Your task to perform on an android device: Add razer kraken to the cart on newegg Image 0: 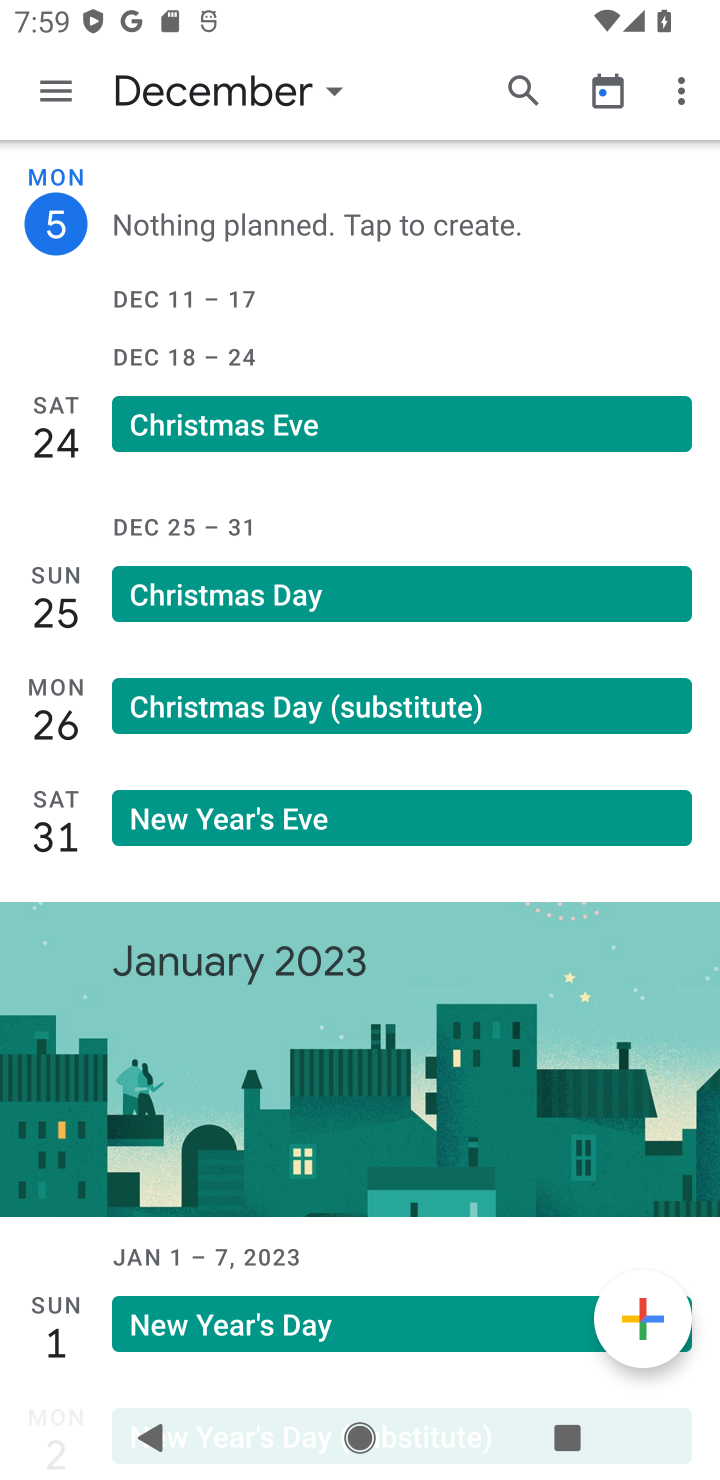
Step 0: press home button
Your task to perform on an android device: Add razer kraken to the cart on newegg Image 1: 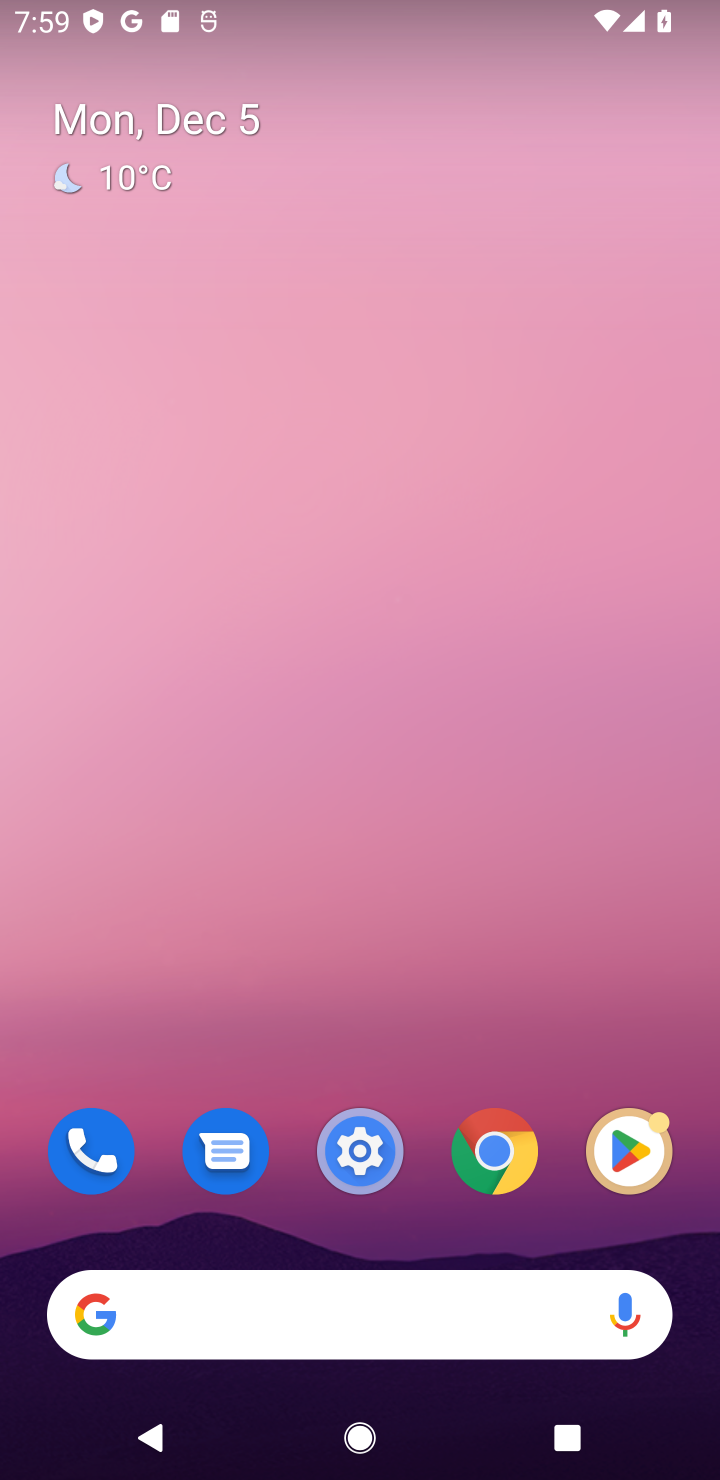
Step 1: click (541, 1327)
Your task to perform on an android device: Add razer kraken to the cart on newegg Image 2: 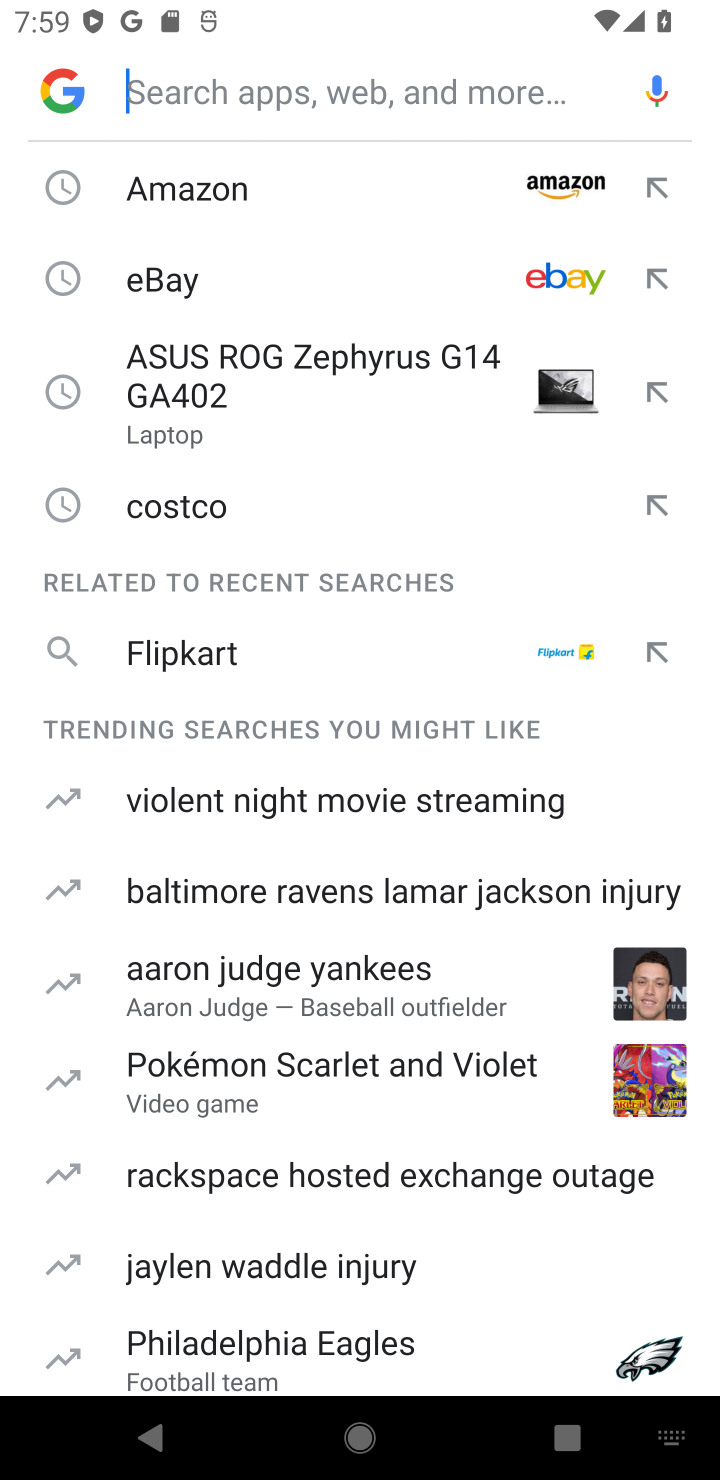
Step 2: type "newegg"
Your task to perform on an android device: Add razer kraken to the cart on newegg Image 3: 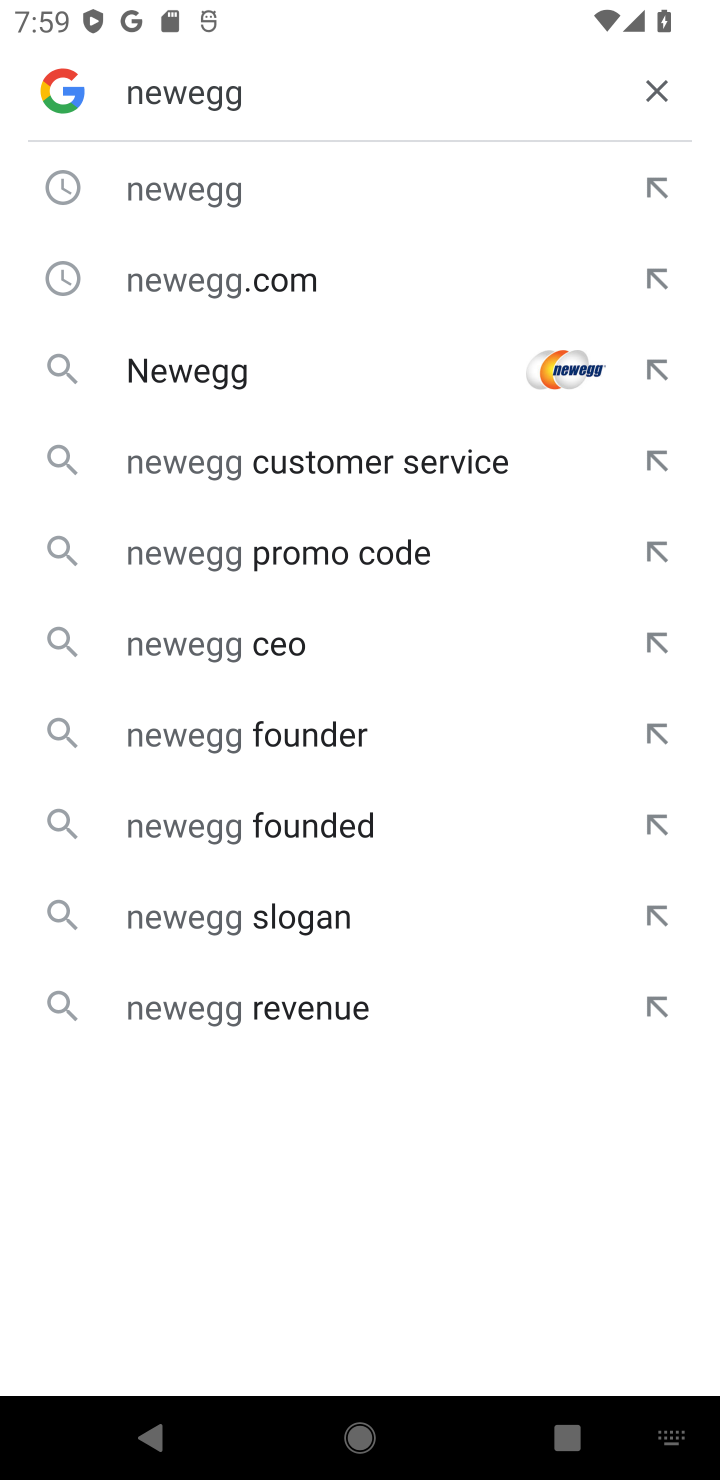
Step 3: click (216, 281)
Your task to perform on an android device: Add razer kraken to the cart on newegg Image 4: 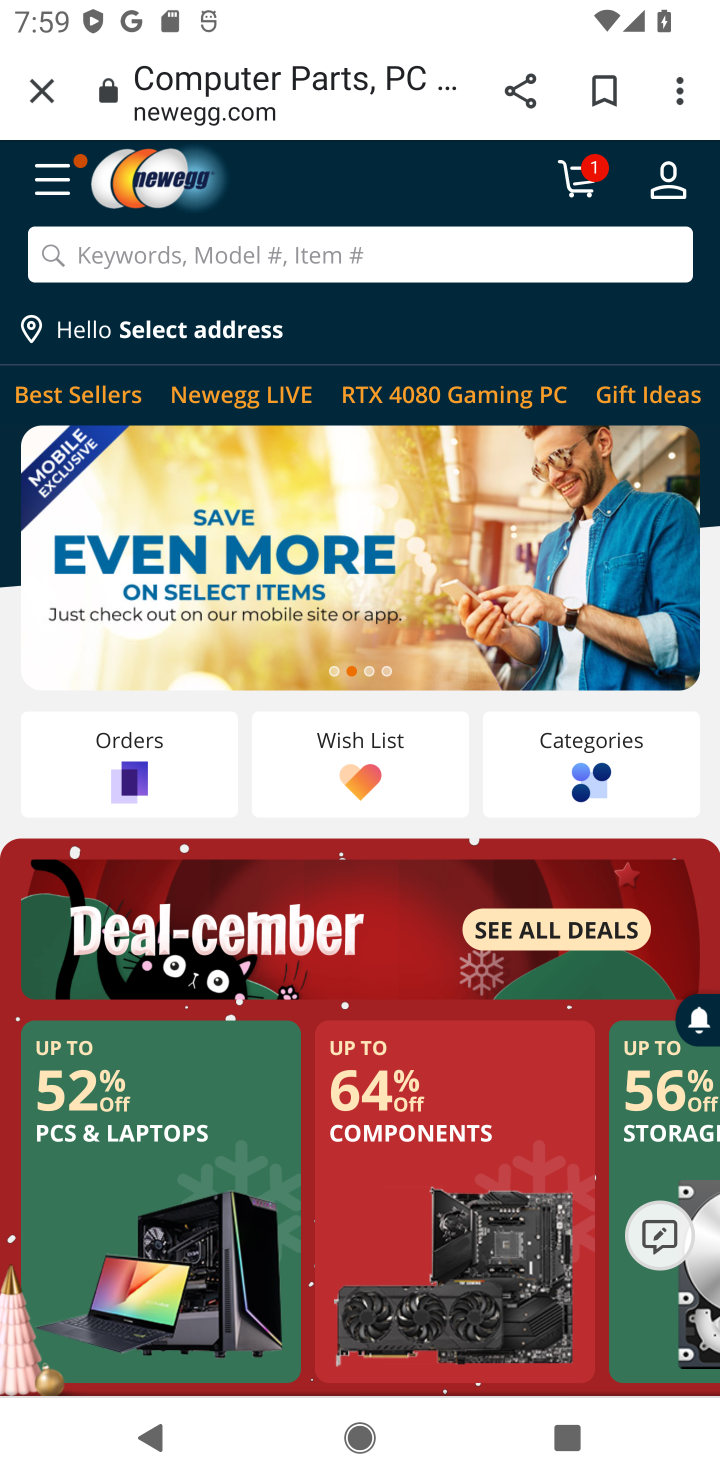
Step 4: click (244, 263)
Your task to perform on an android device: Add razer kraken to the cart on newegg Image 5: 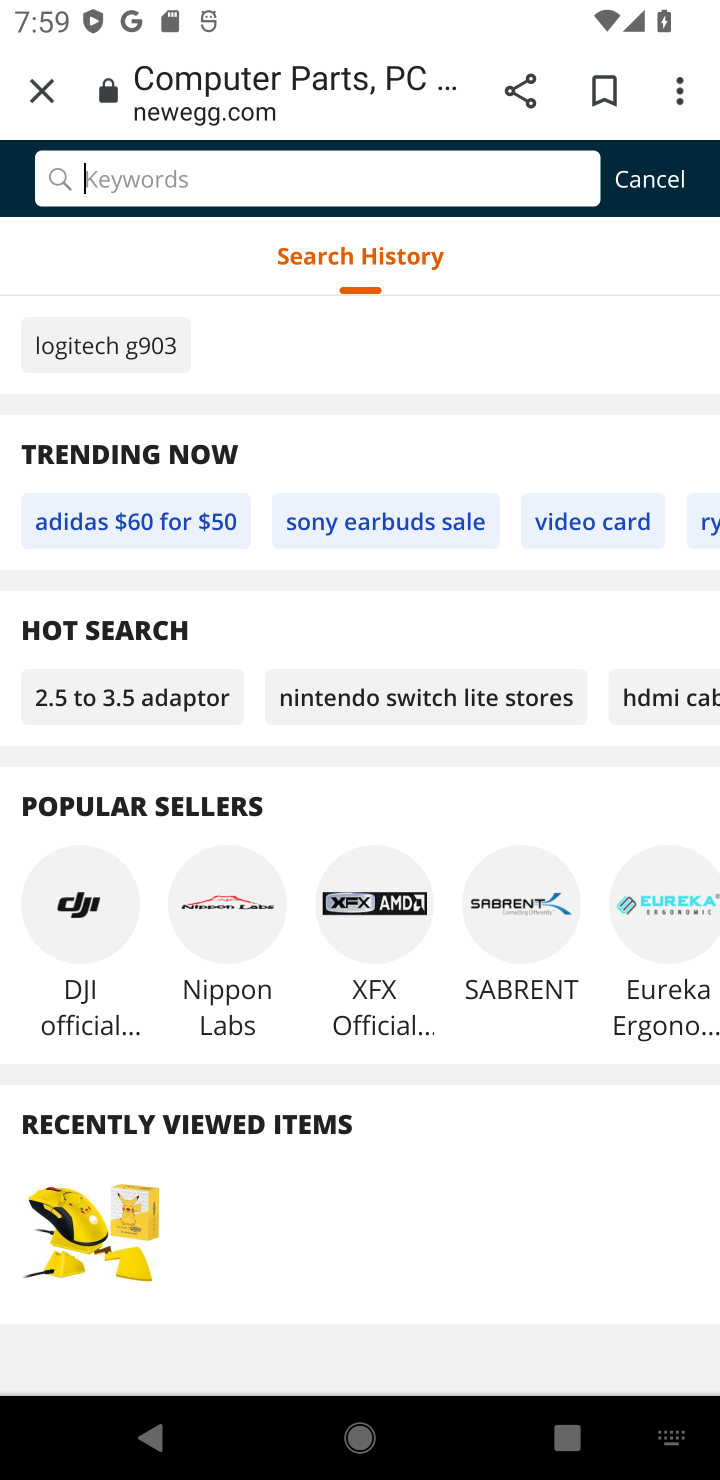
Step 5: type "razer karken"
Your task to perform on an android device: Add razer kraken to the cart on newegg Image 6: 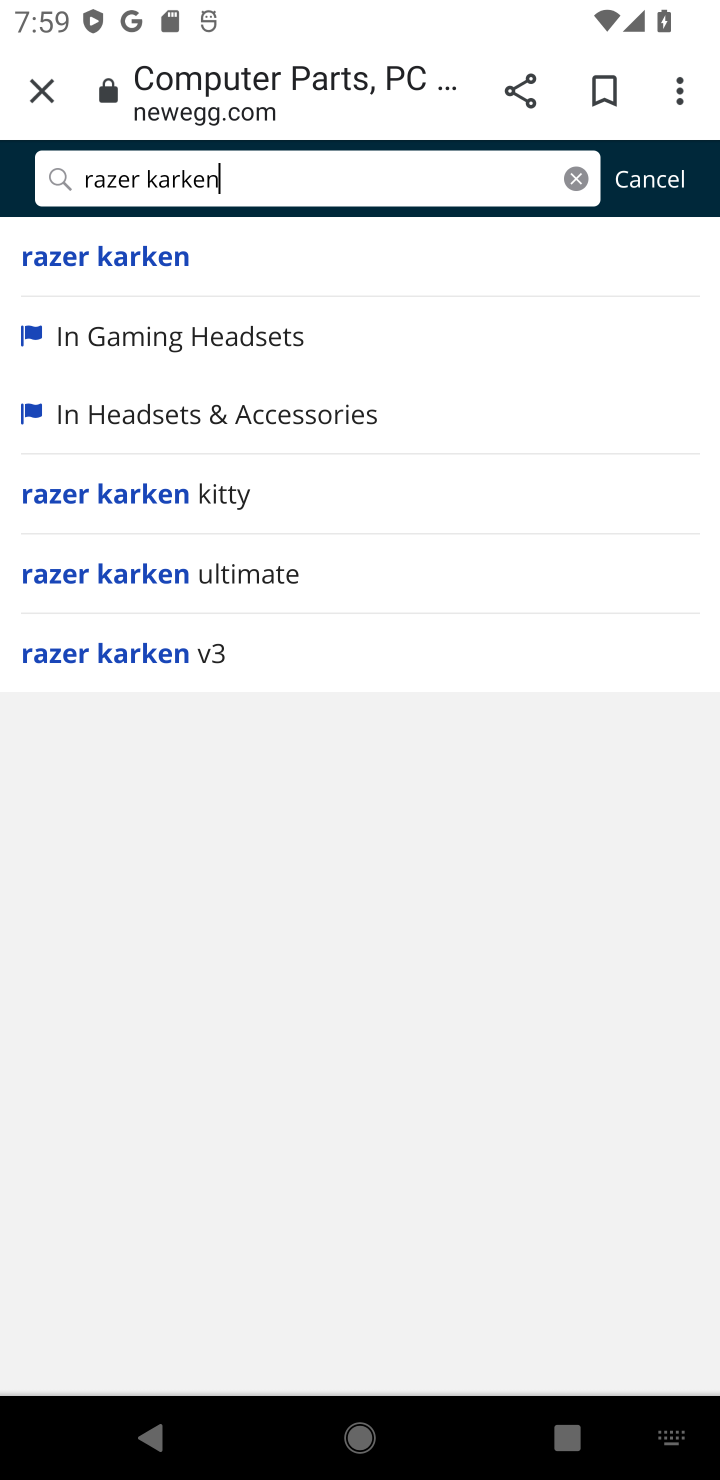
Step 6: click (159, 251)
Your task to perform on an android device: Add razer kraken to the cart on newegg Image 7: 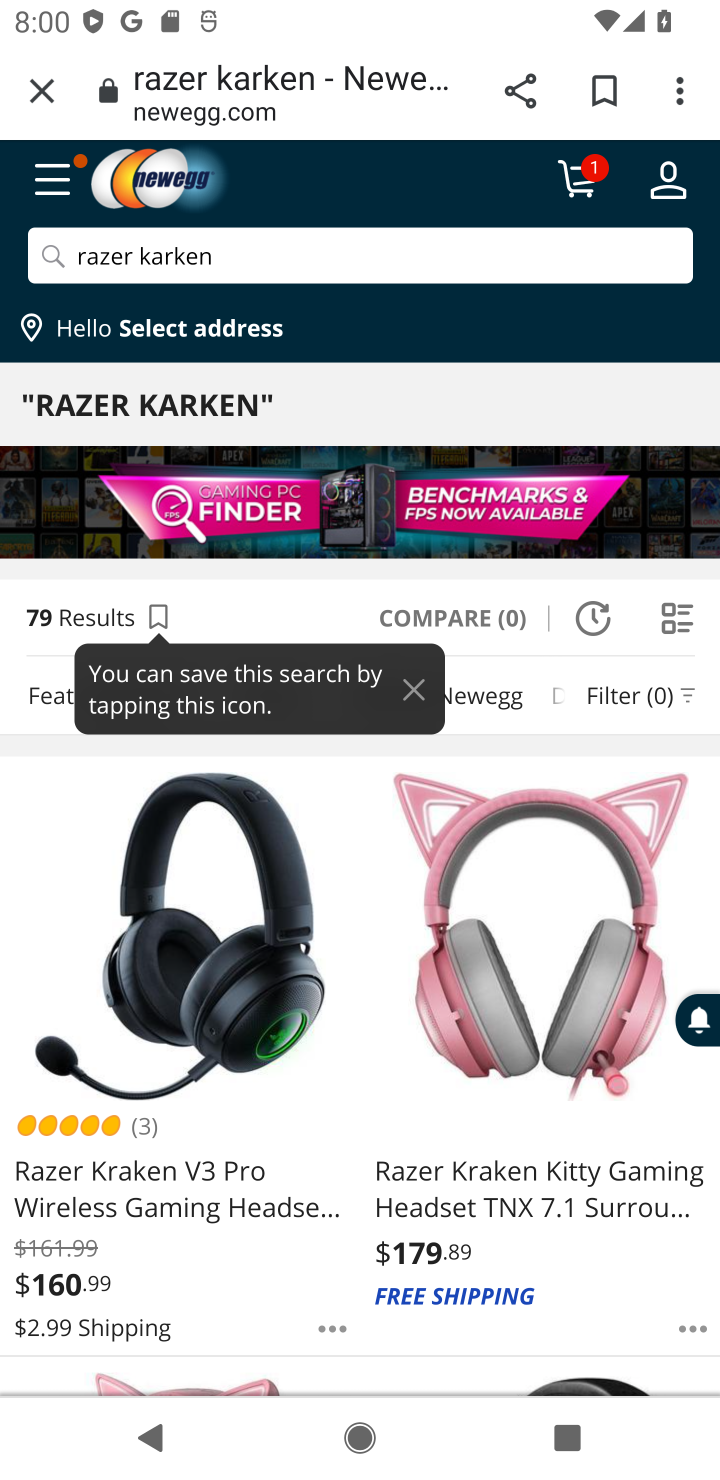
Step 7: drag from (265, 1299) to (214, 1053)
Your task to perform on an android device: Add razer kraken to the cart on newegg Image 8: 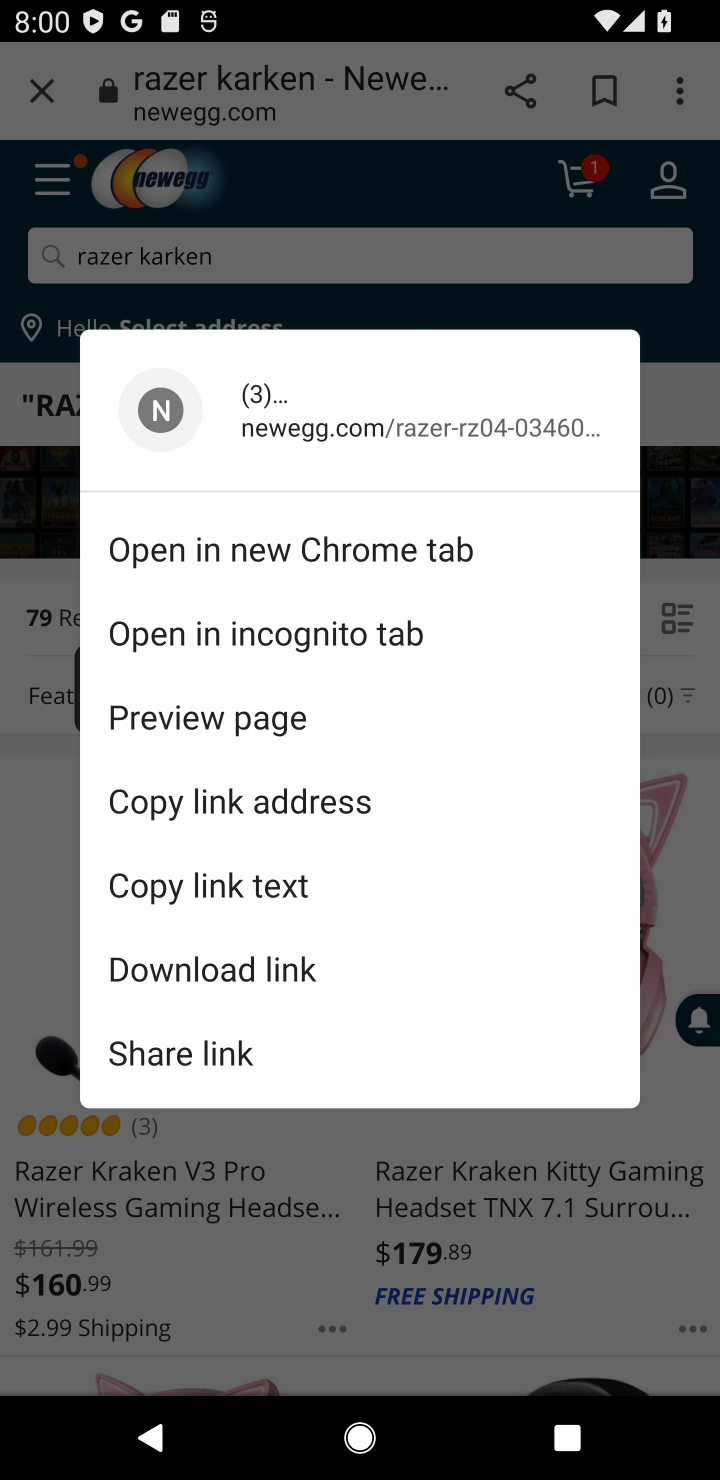
Step 8: click (178, 1293)
Your task to perform on an android device: Add razer kraken to the cart on newegg Image 9: 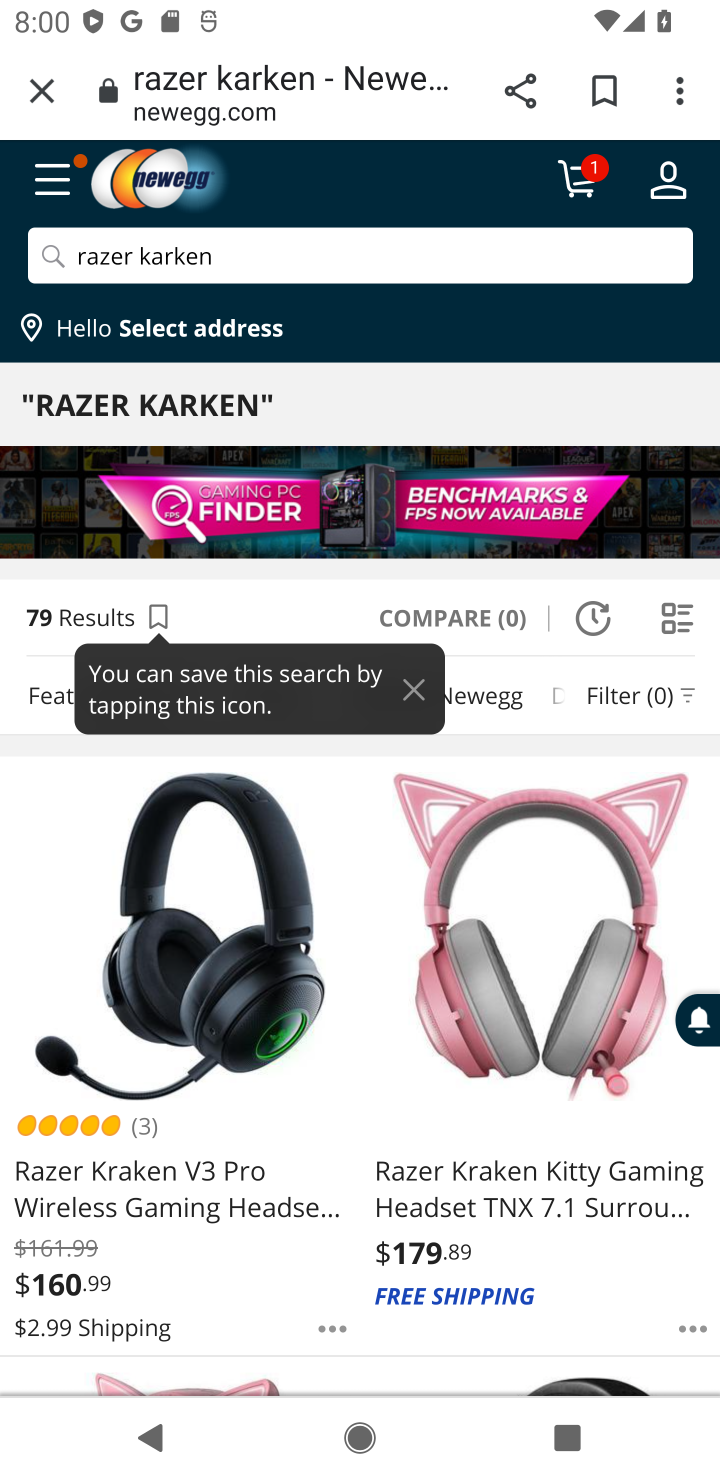
Step 9: drag from (248, 1295) to (243, 673)
Your task to perform on an android device: Add razer kraken to the cart on newegg Image 10: 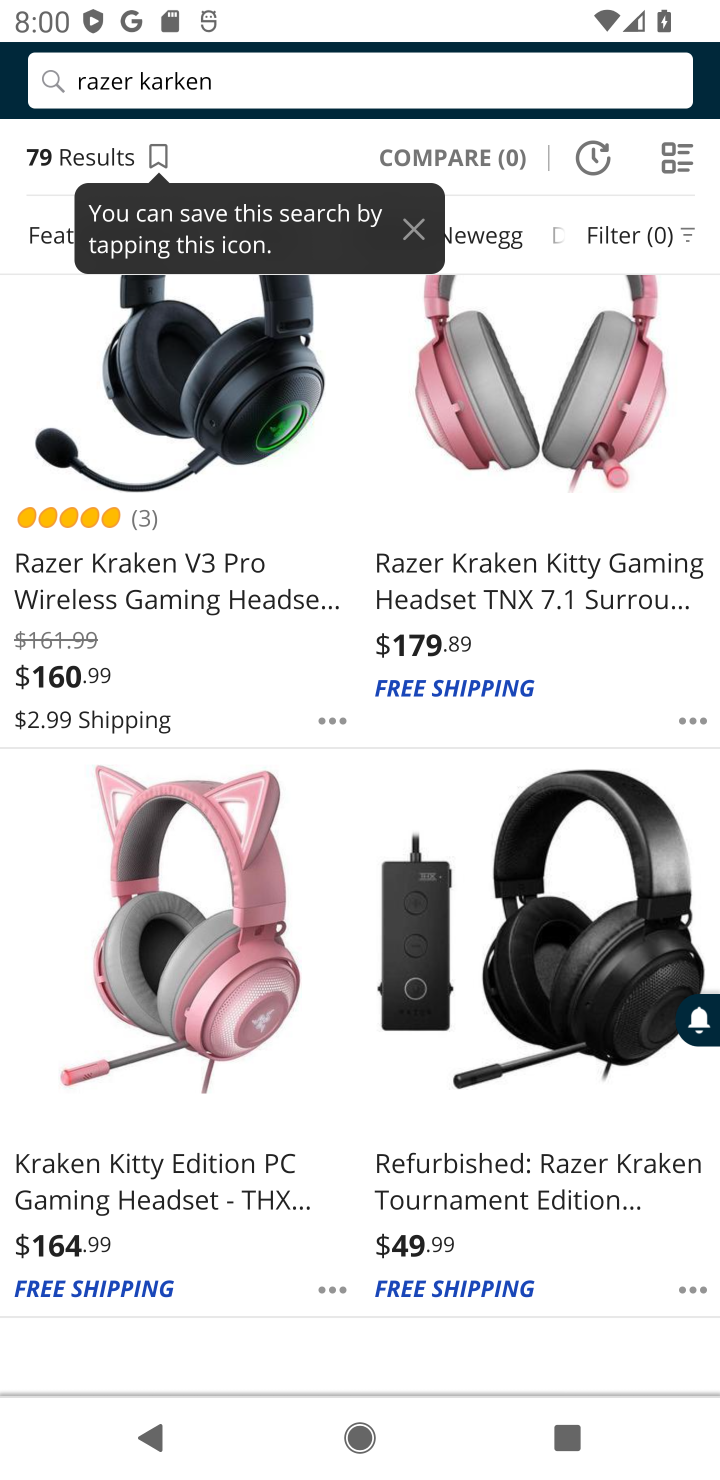
Step 10: click (166, 554)
Your task to perform on an android device: Add razer kraken to the cart on newegg Image 11: 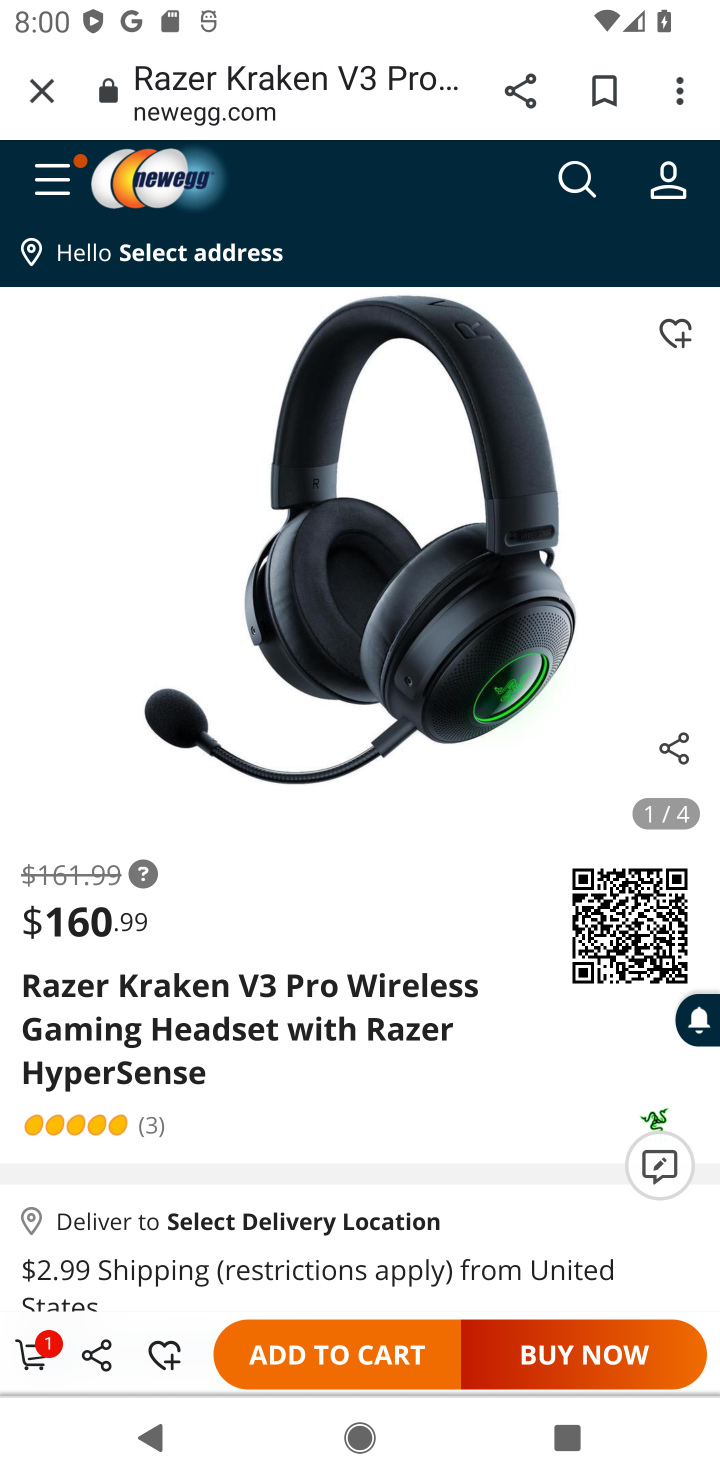
Step 11: click (290, 1343)
Your task to perform on an android device: Add razer kraken to the cart on newegg Image 12: 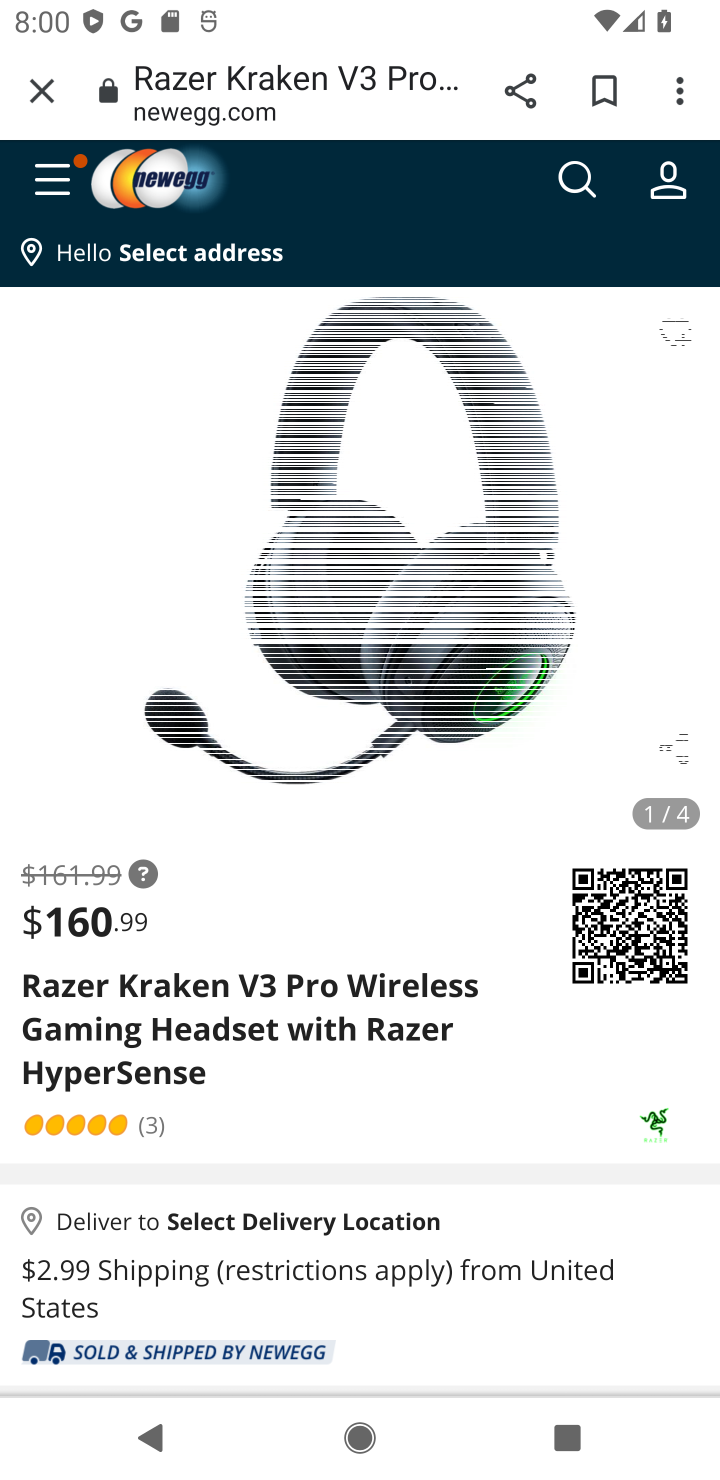
Step 12: task complete